Your task to perform on an android device: open app "Calculator" (install if not already installed) Image 0: 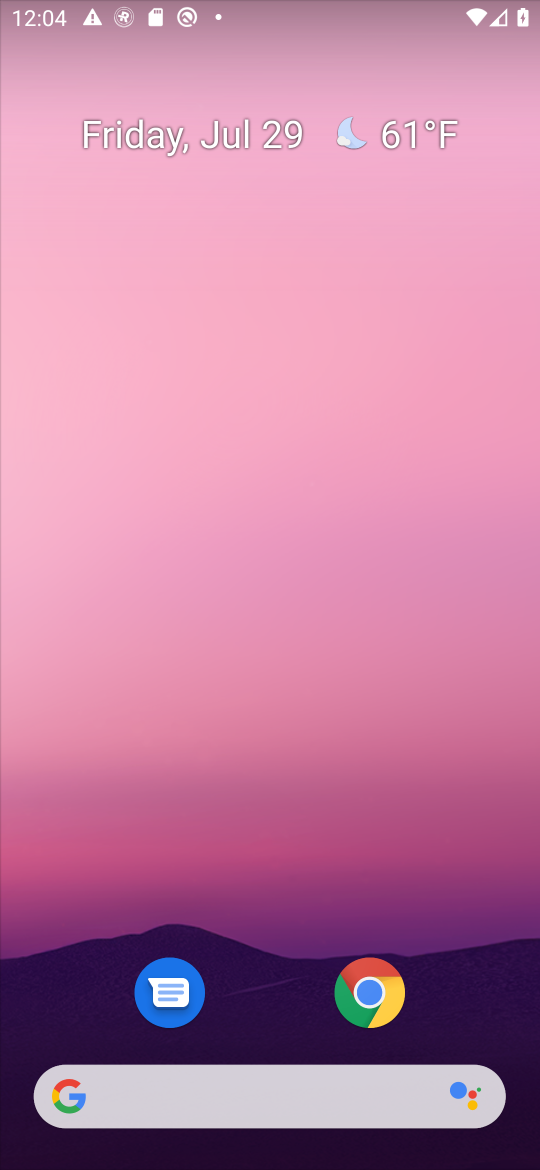
Step 0: drag from (199, 1099) to (190, 321)
Your task to perform on an android device: open app "Calculator" (install if not already installed) Image 1: 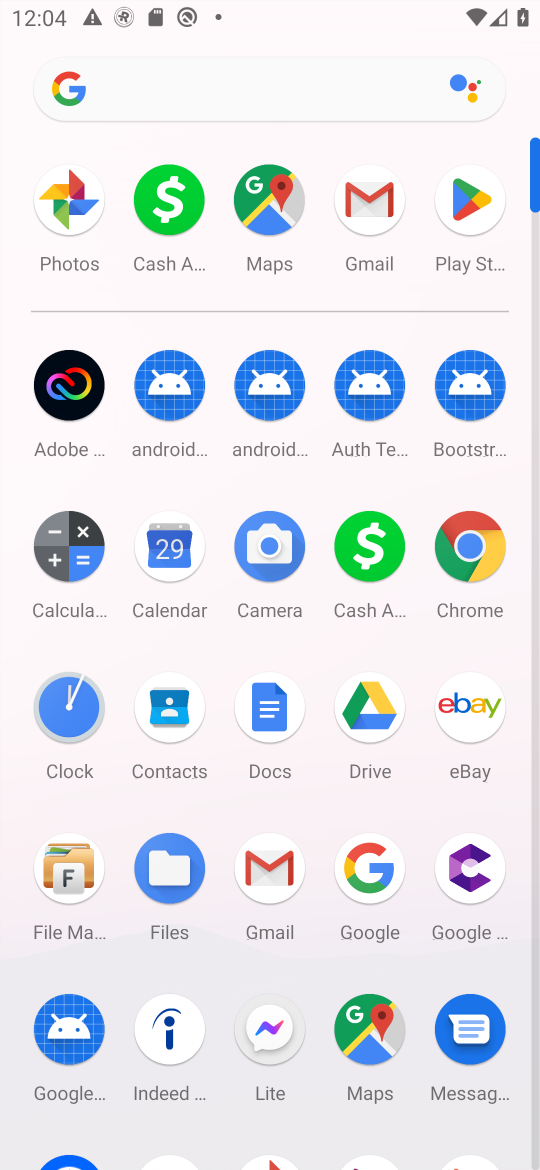
Step 1: click (466, 205)
Your task to perform on an android device: open app "Calculator" (install if not already installed) Image 2: 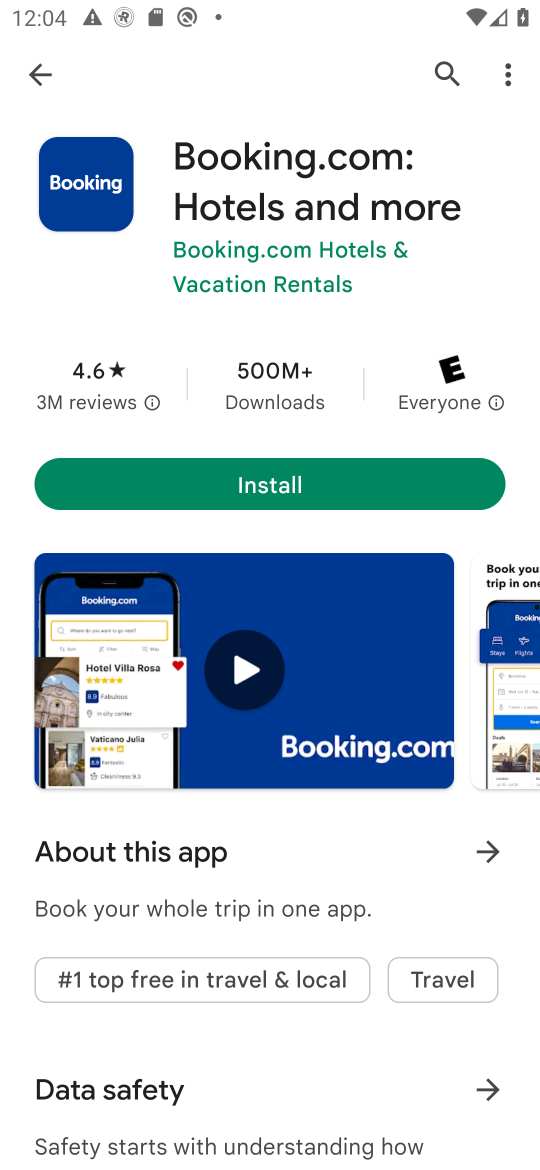
Step 2: click (443, 64)
Your task to perform on an android device: open app "Calculator" (install if not already installed) Image 3: 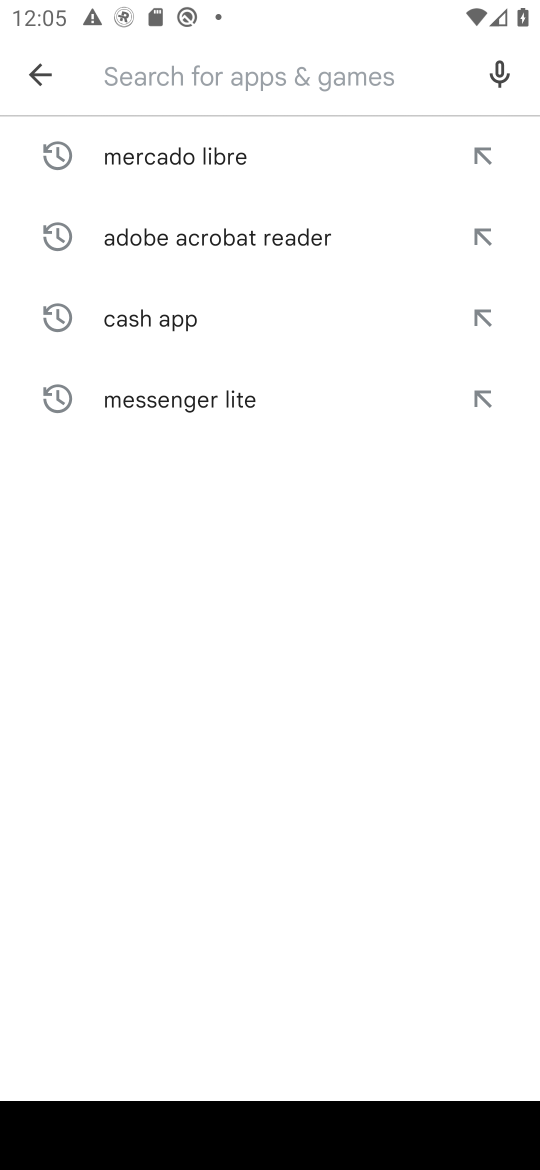
Step 3: type "Calculator"
Your task to perform on an android device: open app "Calculator" (install if not already installed) Image 4: 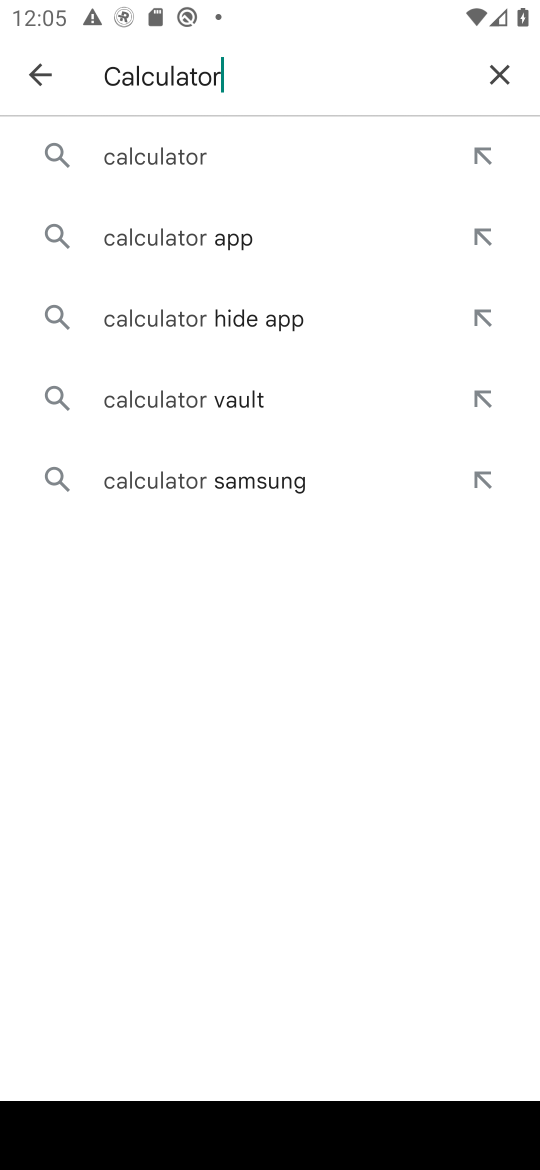
Step 4: click (168, 159)
Your task to perform on an android device: open app "Calculator" (install if not already installed) Image 5: 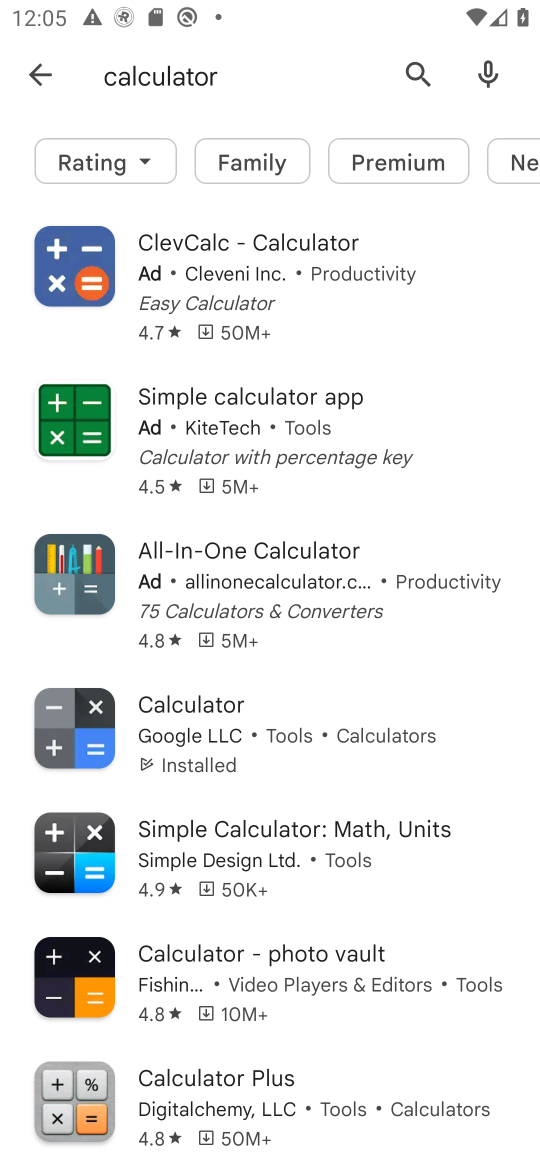
Step 5: click (180, 708)
Your task to perform on an android device: open app "Calculator" (install if not already installed) Image 6: 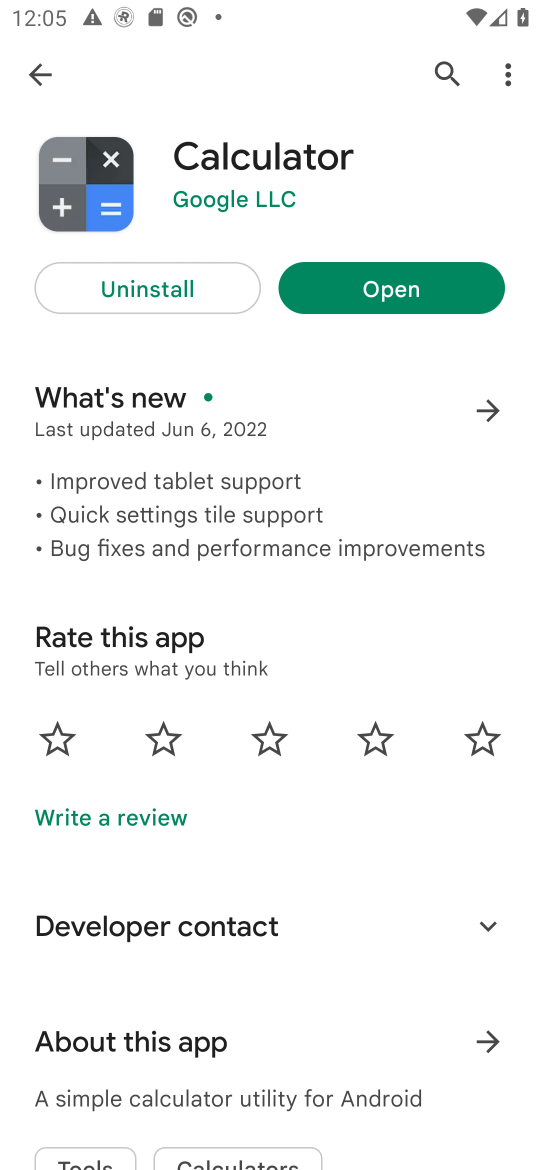
Step 6: click (369, 286)
Your task to perform on an android device: open app "Calculator" (install if not already installed) Image 7: 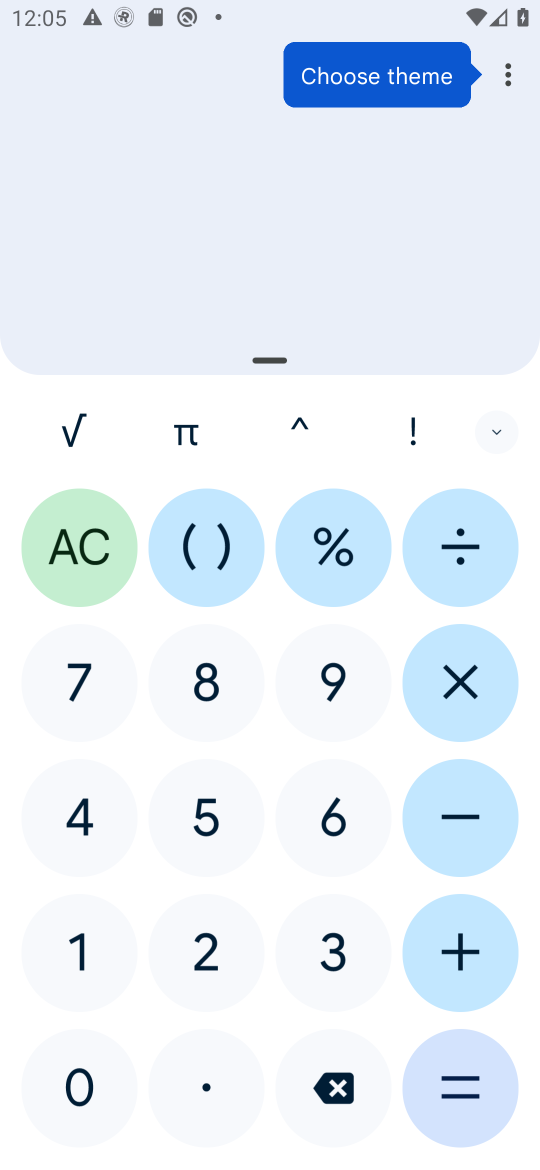
Step 7: task complete